Your task to perform on an android device: Go to Yahoo.com Image 0: 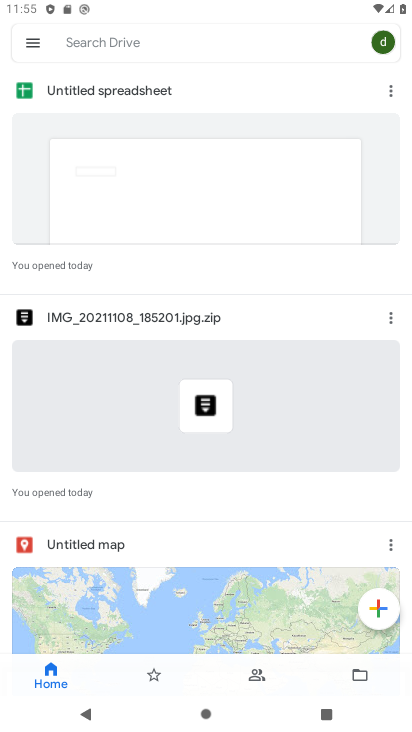
Step 0: press back button
Your task to perform on an android device: Go to Yahoo.com Image 1: 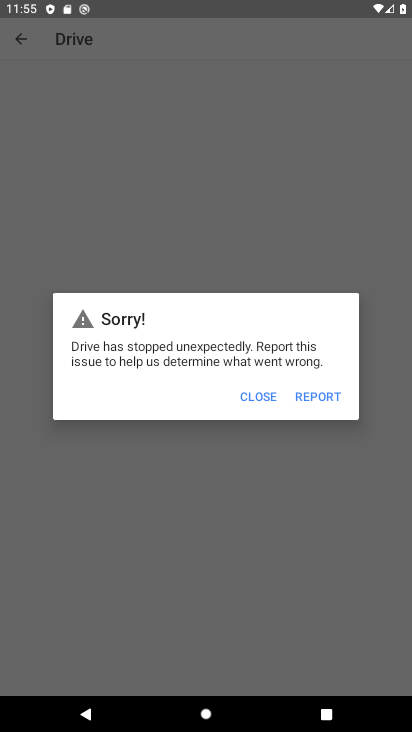
Step 1: press home button
Your task to perform on an android device: Go to Yahoo.com Image 2: 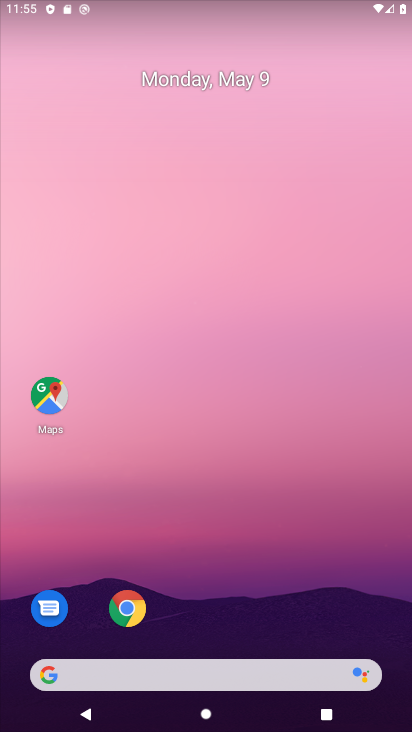
Step 2: drag from (246, 590) to (165, 19)
Your task to perform on an android device: Go to Yahoo.com Image 3: 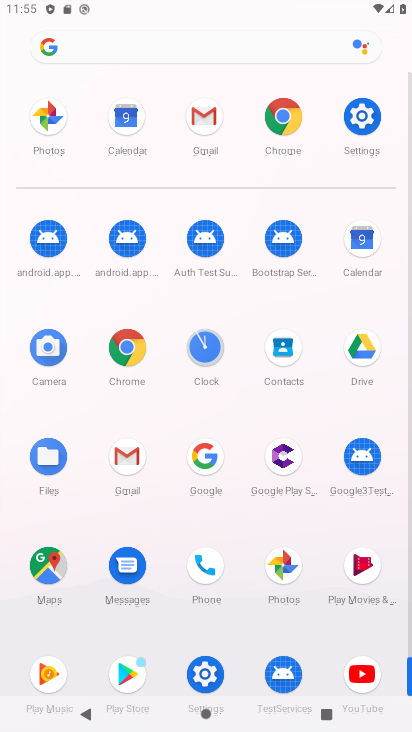
Step 3: click (127, 349)
Your task to perform on an android device: Go to Yahoo.com Image 4: 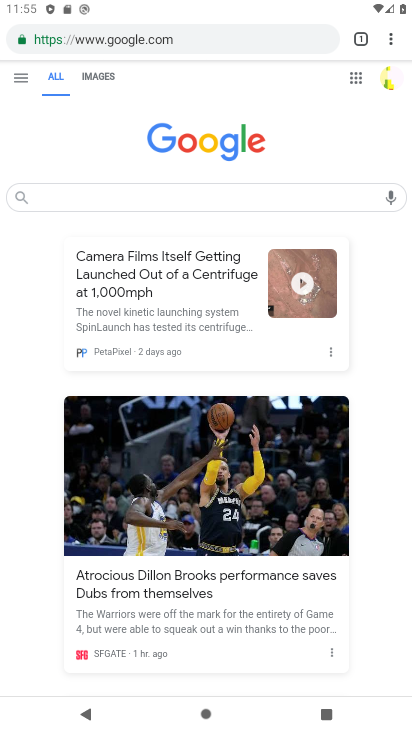
Step 4: click (204, 32)
Your task to perform on an android device: Go to Yahoo.com Image 5: 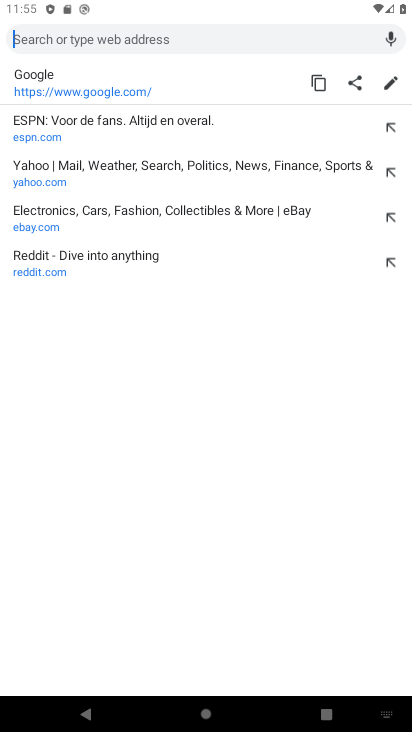
Step 5: type "Yahoo.com"
Your task to perform on an android device: Go to Yahoo.com Image 6: 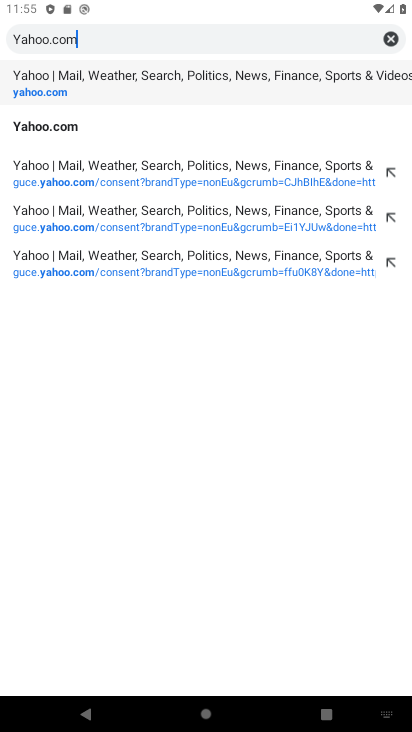
Step 6: type ""
Your task to perform on an android device: Go to Yahoo.com Image 7: 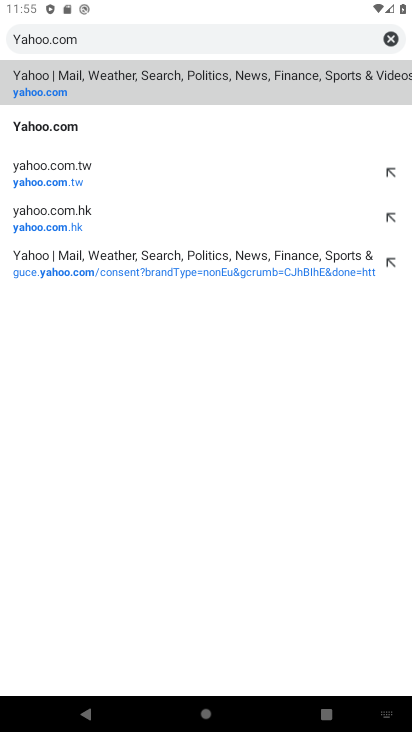
Step 7: click (163, 76)
Your task to perform on an android device: Go to Yahoo.com Image 8: 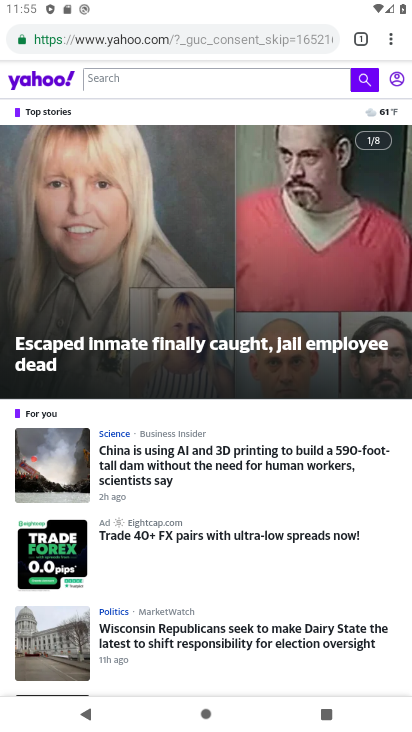
Step 8: task complete